Your task to perform on an android device: Go to Maps Image 0: 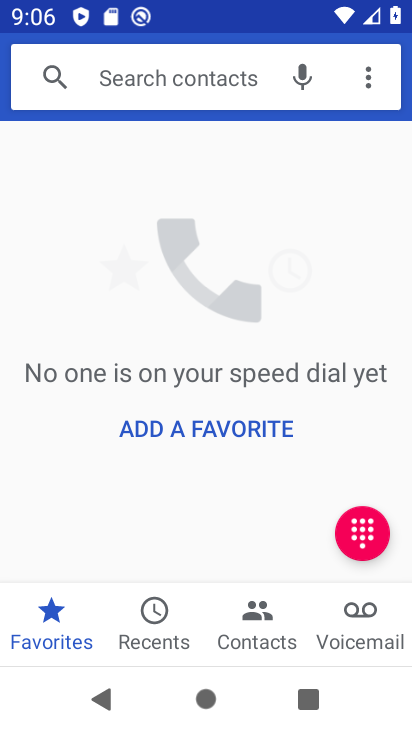
Step 0: press home button
Your task to perform on an android device: Go to Maps Image 1: 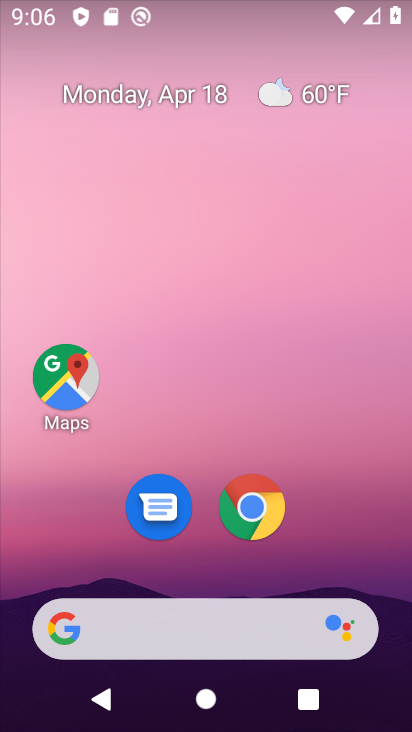
Step 1: click (37, 365)
Your task to perform on an android device: Go to Maps Image 2: 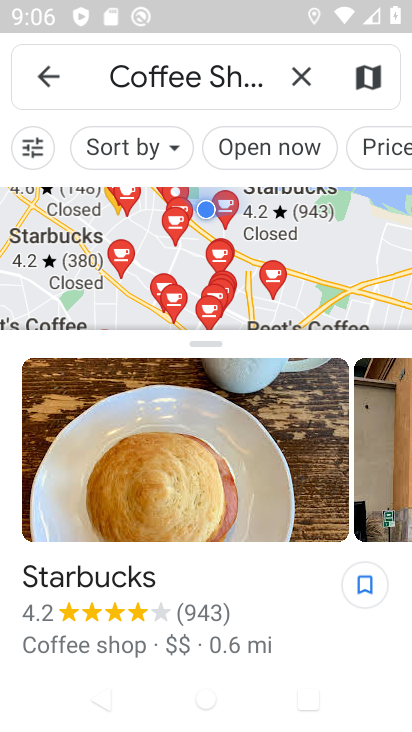
Step 2: task complete